Your task to perform on an android device: Go to display settings Image 0: 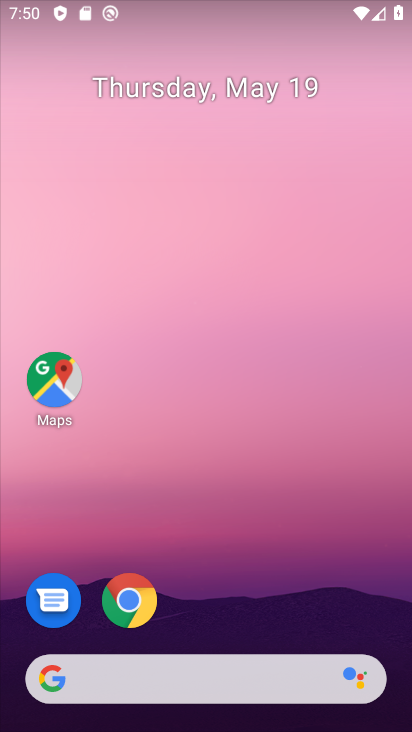
Step 0: drag from (292, 582) to (265, 25)
Your task to perform on an android device: Go to display settings Image 1: 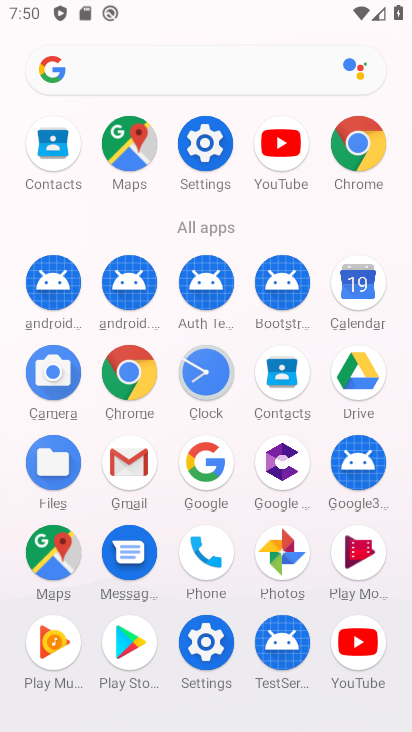
Step 1: click (215, 165)
Your task to perform on an android device: Go to display settings Image 2: 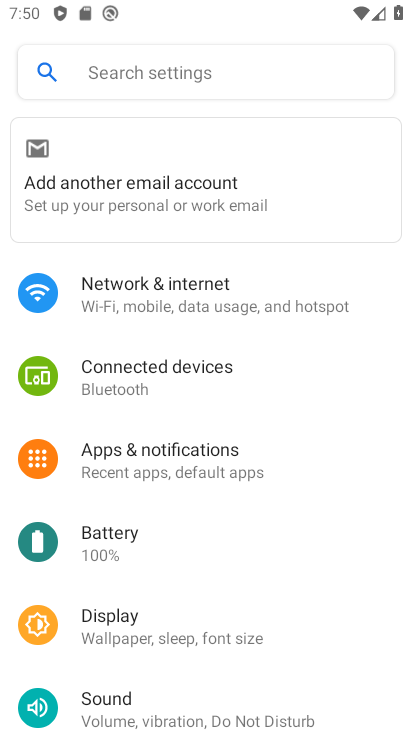
Step 2: click (208, 611)
Your task to perform on an android device: Go to display settings Image 3: 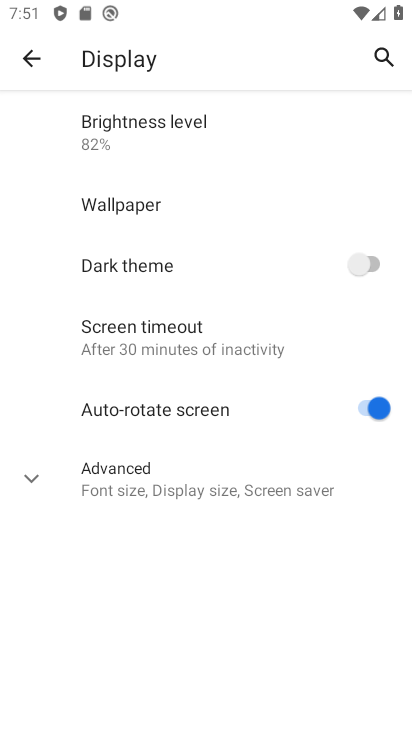
Step 3: task complete